Your task to perform on an android device: Open Yahoo.com Image 0: 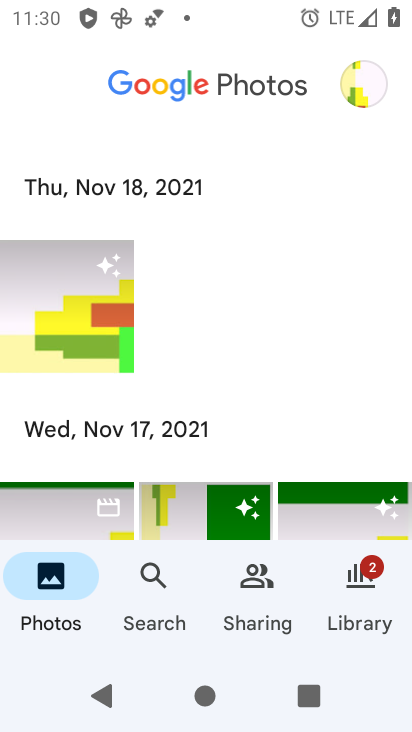
Step 0: press home button
Your task to perform on an android device: Open Yahoo.com Image 1: 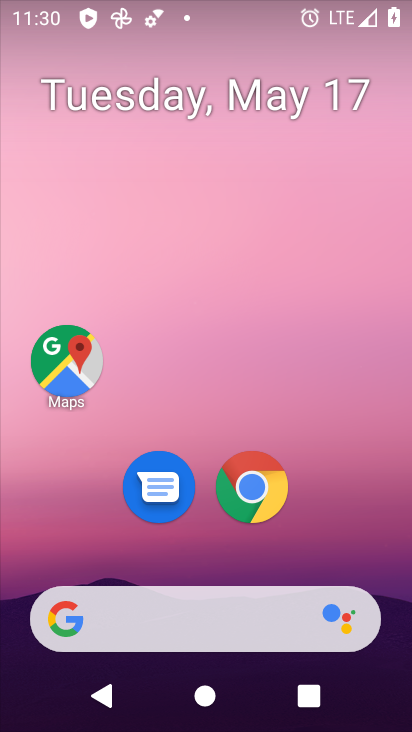
Step 1: drag from (306, 539) to (319, 570)
Your task to perform on an android device: Open Yahoo.com Image 2: 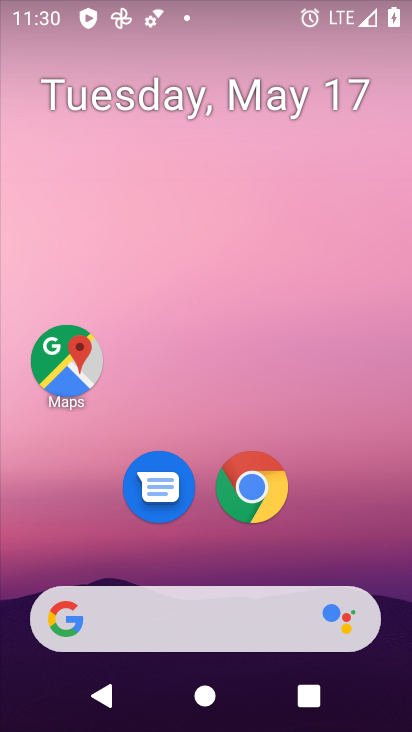
Step 2: click (260, 498)
Your task to perform on an android device: Open Yahoo.com Image 3: 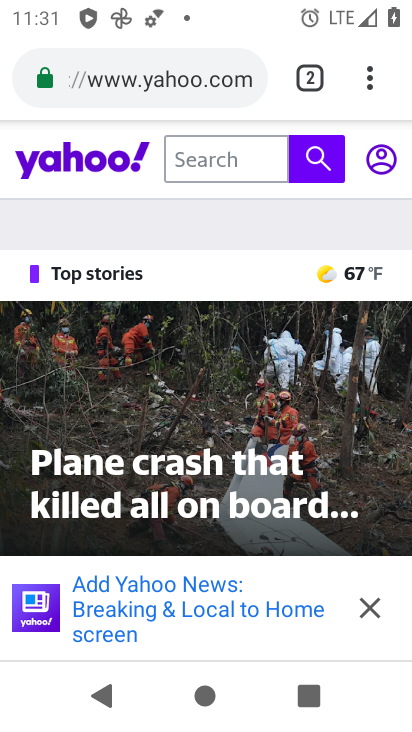
Step 3: task complete